Your task to perform on an android device: Open ESPN.com Image 0: 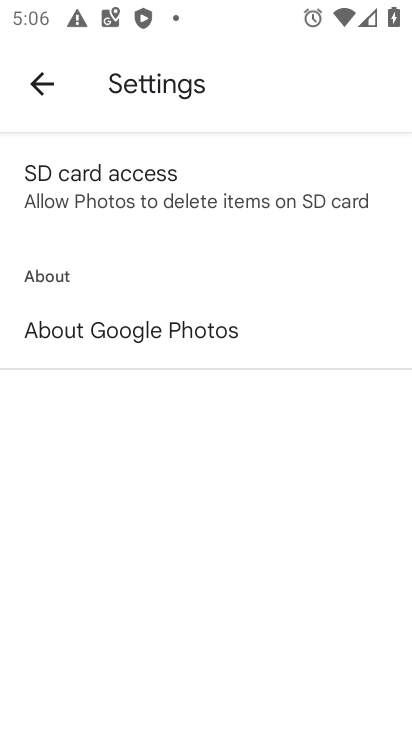
Step 0: press home button
Your task to perform on an android device: Open ESPN.com Image 1: 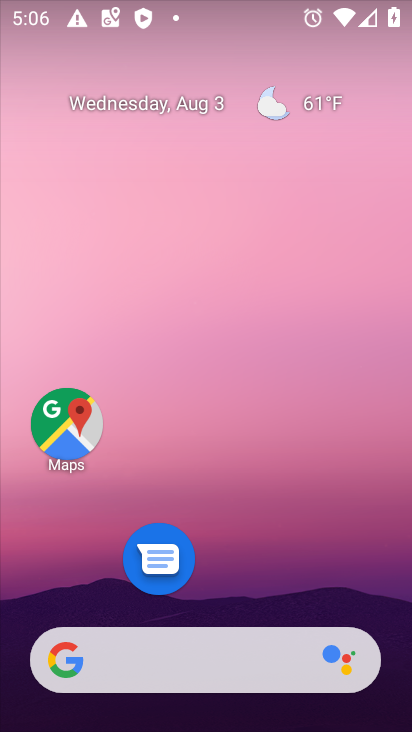
Step 1: drag from (257, 626) to (230, 163)
Your task to perform on an android device: Open ESPN.com Image 2: 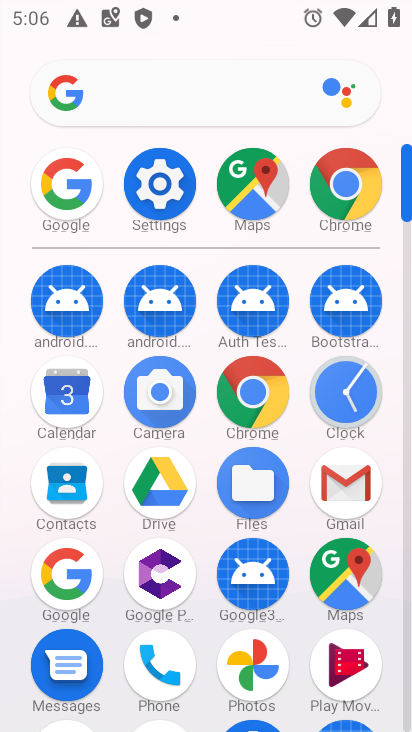
Step 2: click (349, 177)
Your task to perform on an android device: Open ESPN.com Image 3: 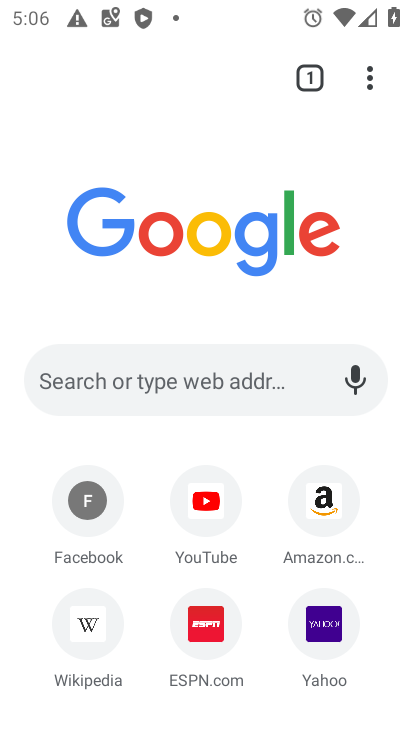
Step 3: click (213, 629)
Your task to perform on an android device: Open ESPN.com Image 4: 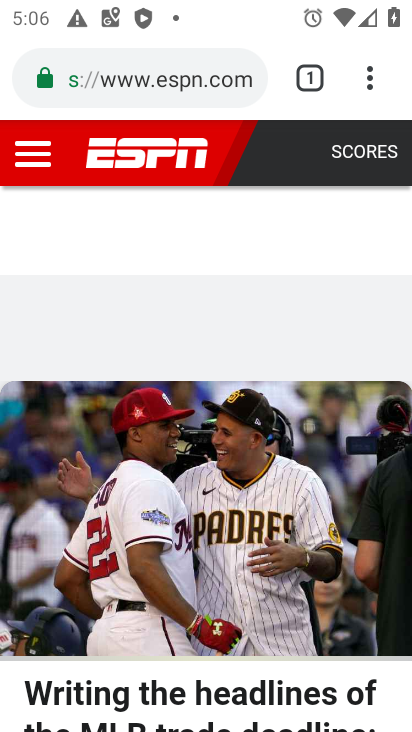
Step 4: task complete